Your task to perform on an android device: search for starred emails in the gmail app Image 0: 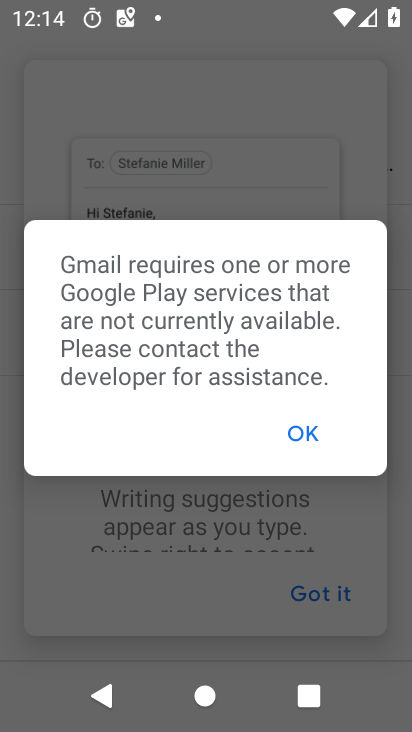
Step 0: press home button
Your task to perform on an android device: search for starred emails in the gmail app Image 1: 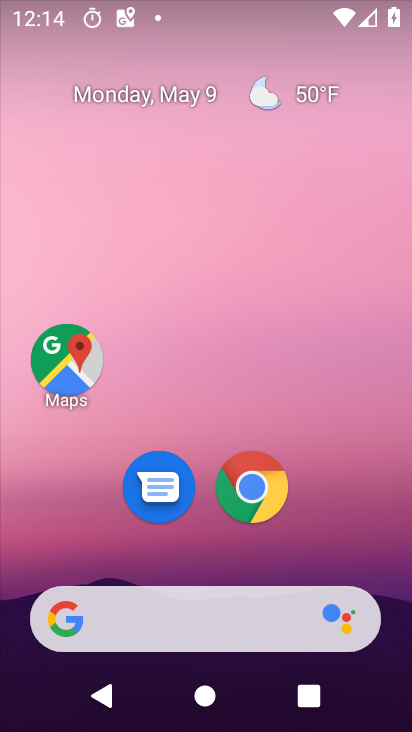
Step 1: drag from (297, 550) to (322, 99)
Your task to perform on an android device: search for starred emails in the gmail app Image 2: 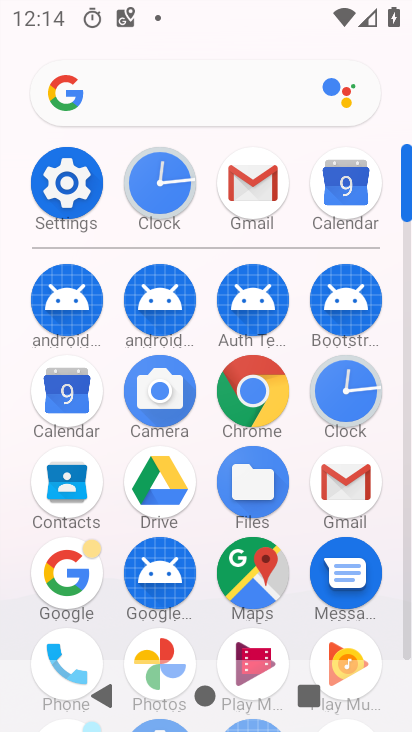
Step 2: click (341, 504)
Your task to perform on an android device: search for starred emails in the gmail app Image 3: 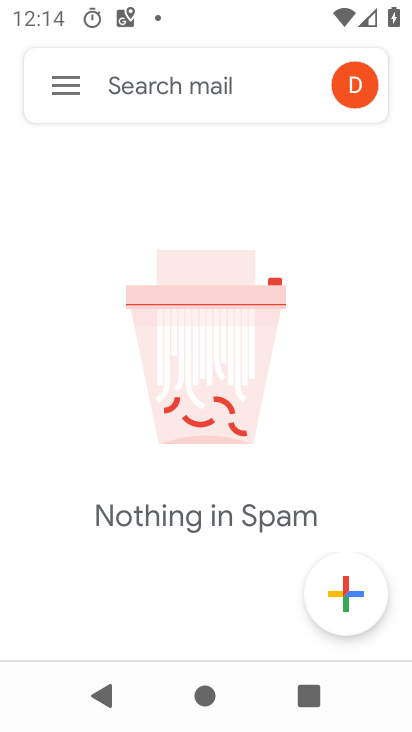
Step 3: click (85, 89)
Your task to perform on an android device: search for starred emails in the gmail app Image 4: 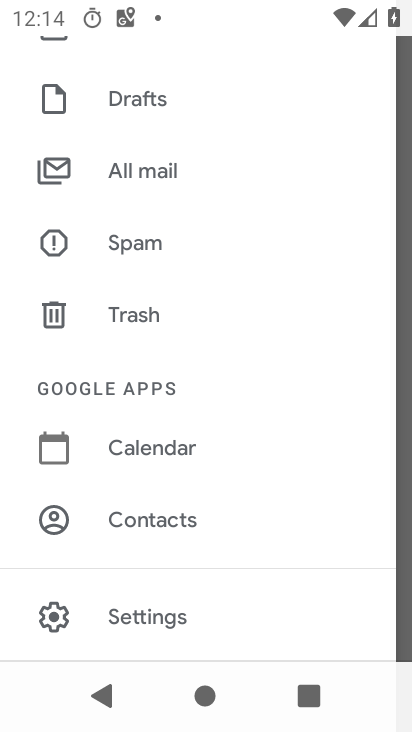
Step 4: drag from (228, 199) to (249, 604)
Your task to perform on an android device: search for starred emails in the gmail app Image 5: 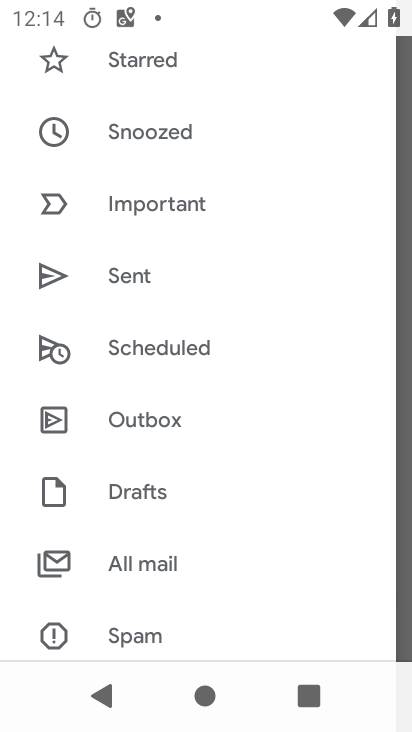
Step 5: click (205, 72)
Your task to perform on an android device: search for starred emails in the gmail app Image 6: 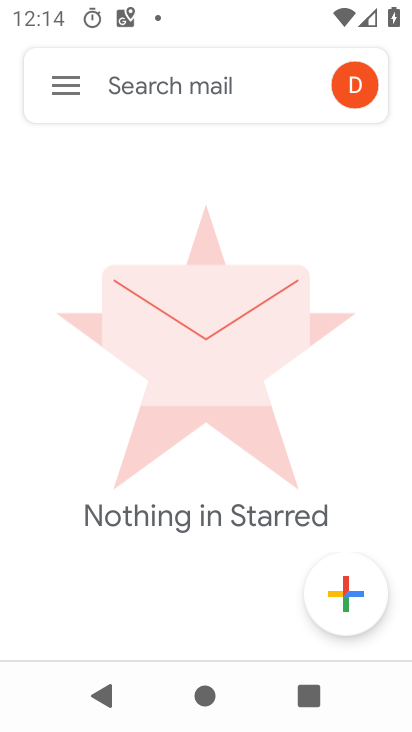
Step 6: task complete